Your task to perform on an android device: all mails in gmail Image 0: 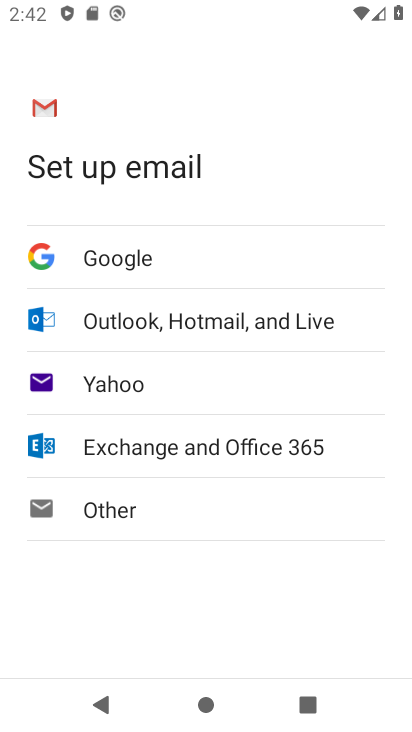
Step 0: press home button
Your task to perform on an android device: all mails in gmail Image 1: 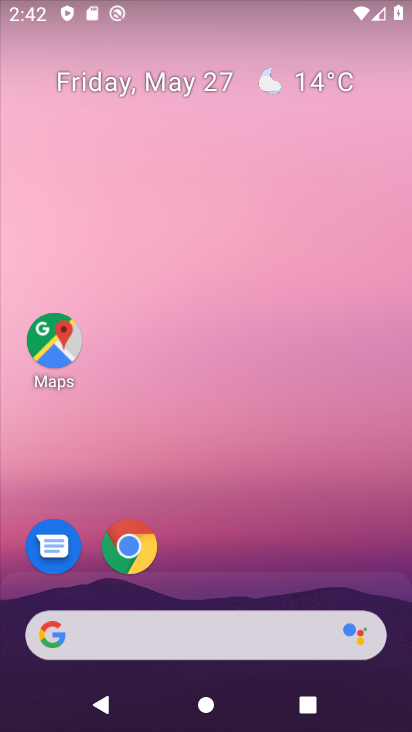
Step 1: drag from (158, 632) to (292, 43)
Your task to perform on an android device: all mails in gmail Image 2: 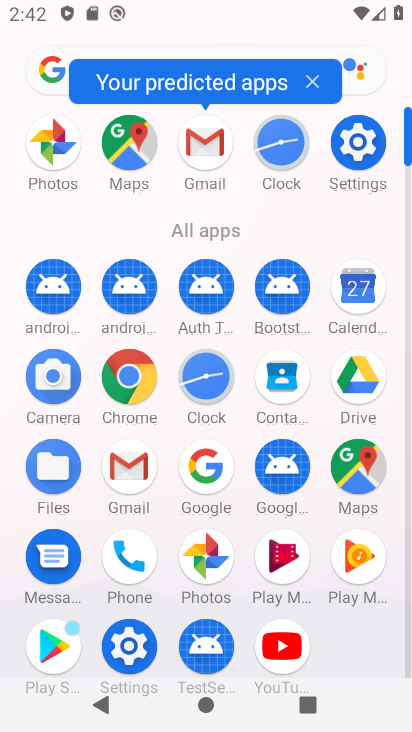
Step 2: click (117, 470)
Your task to perform on an android device: all mails in gmail Image 3: 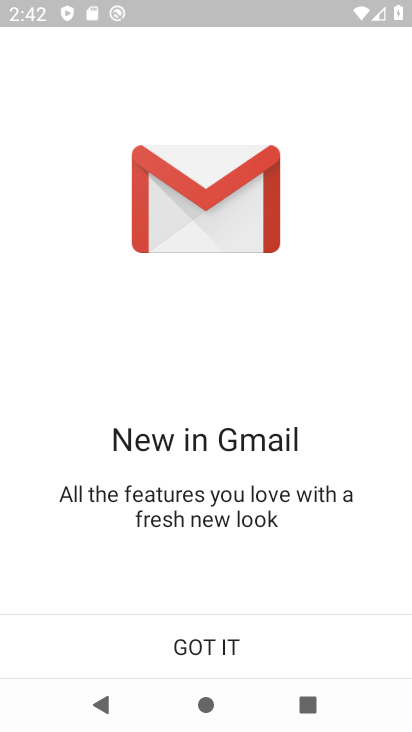
Step 3: click (201, 656)
Your task to perform on an android device: all mails in gmail Image 4: 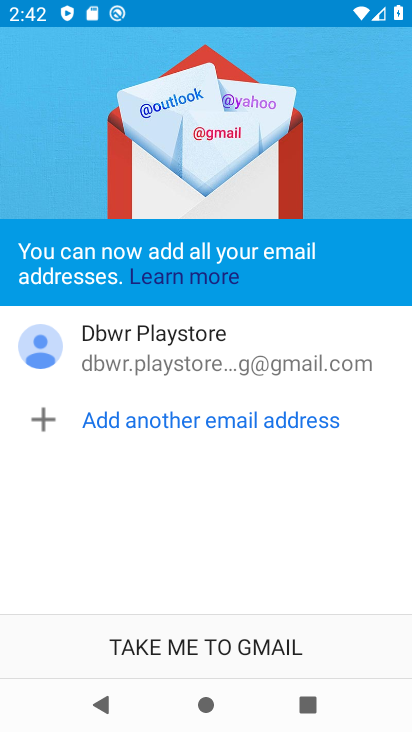
Step 4: click (232, 652)
Your task to perform on an android device: all mails in gmail Image 5: 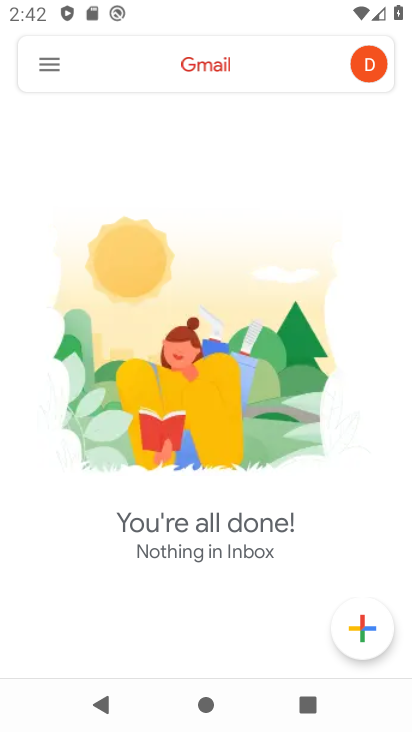
Step 5: click (34, 50)
Your task to perform on an android device: all mails in gmail Image 6: 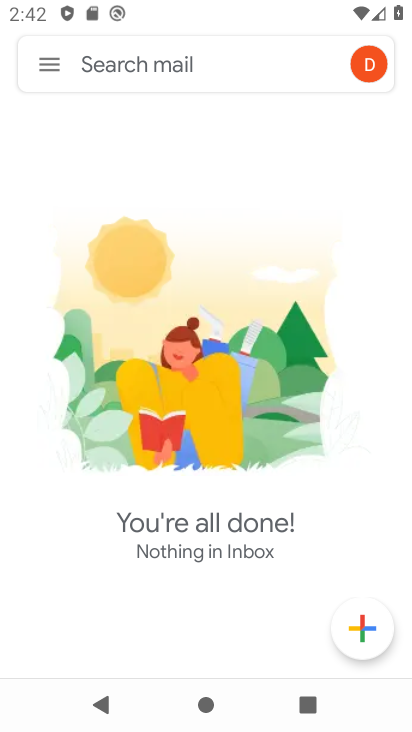
Step 6: click (65, 79)
Your task to perform on an android device: all mails in gmail Image 7: 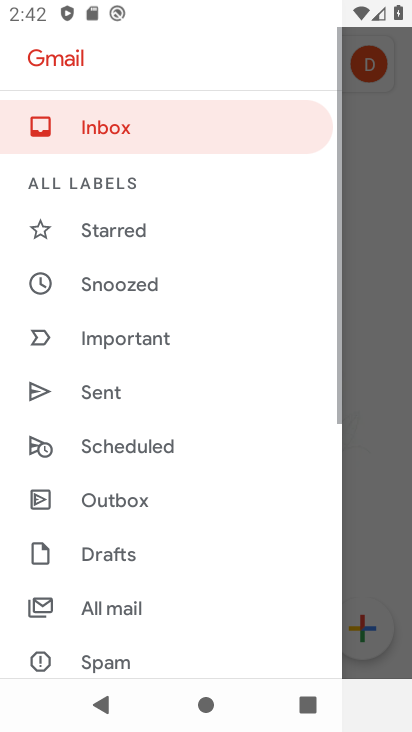
Step 7: drag from (141, 553) to (294, 153)
Your task to perform on an android device: all mails in gmail Image 8: 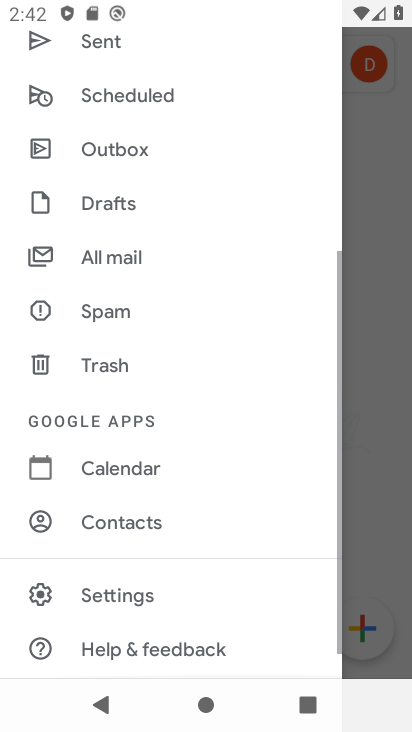
Step 8: drag from (189, 589) to (283, 280)
Your task to perform on an android device: all mails in gmail Image 9: 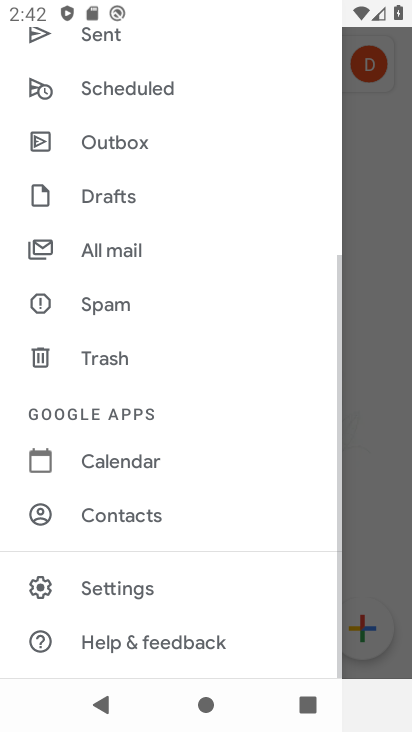
Step 9: click (163, 257)
Your task to perform on an android device: all mails in gmail Image 10: 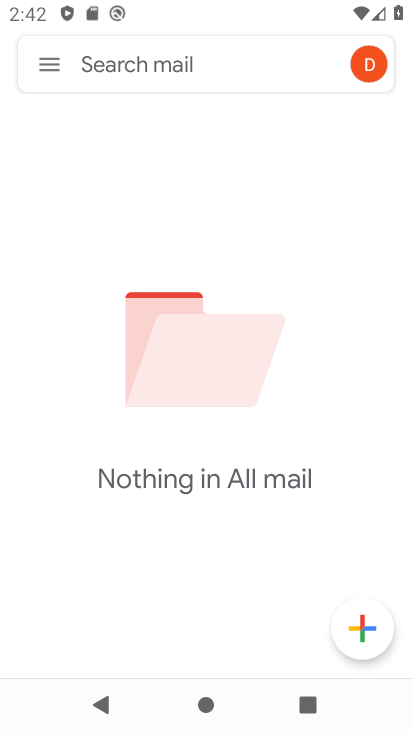
Step 10: task complete